Your task to perform on an android device: Open CNN.com Image 0: 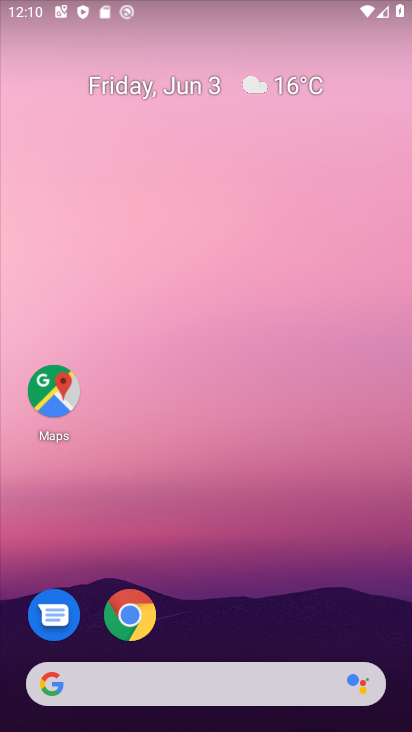
Step 0: drag from (191, 627) to (198, 253)
Your task to perform on an android device: Open CNN.com Image 1: 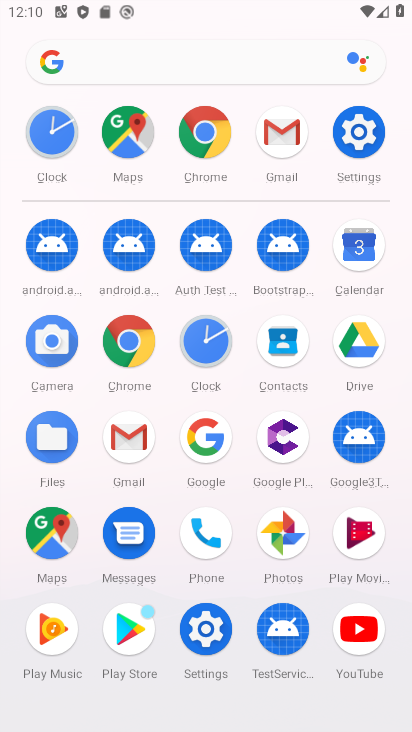
Step 1: click (127, 345)
Your task to perform on an android device: Open CNN.com Image 2: 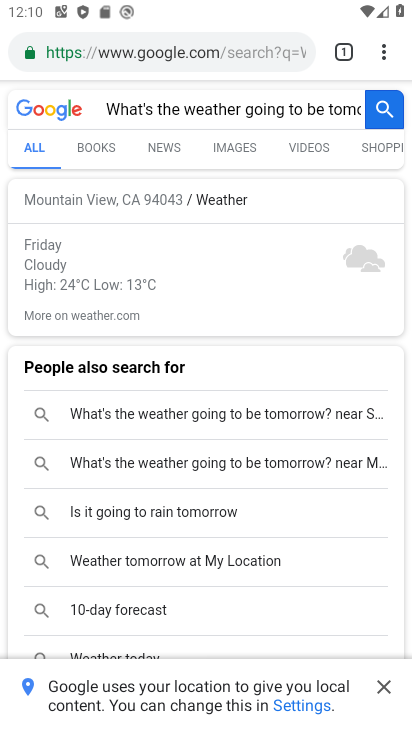
Step 2: click (370, 47)
Your task to perform on an android device: Open CNN.com Image 3: 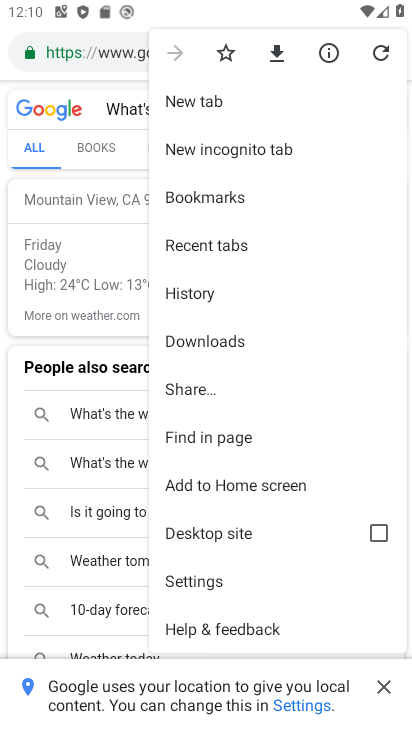
Step 3: click (243, 103)
Your task to perform on an android device: Open CNN.com Image 4: 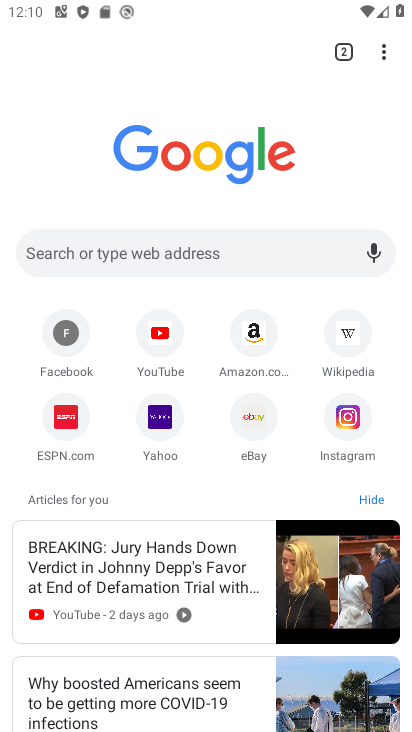
Step 4: click (133, 248)
Your task to perform on an android device: Open CNN.com Image 5: 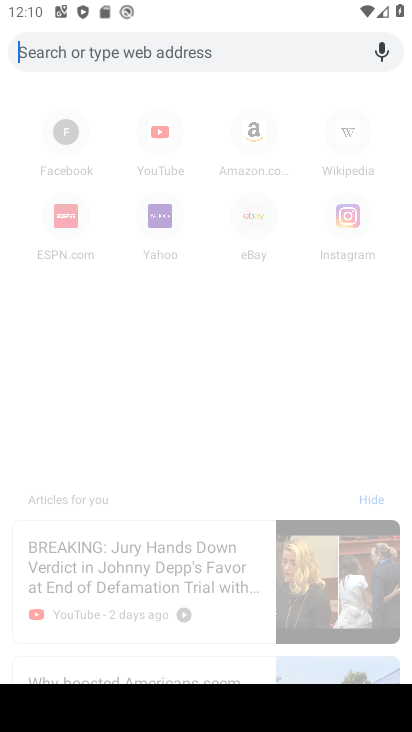
Step 5: type "CNN.com"
Your task to perform on an android device: Open CNN.com Image 6: 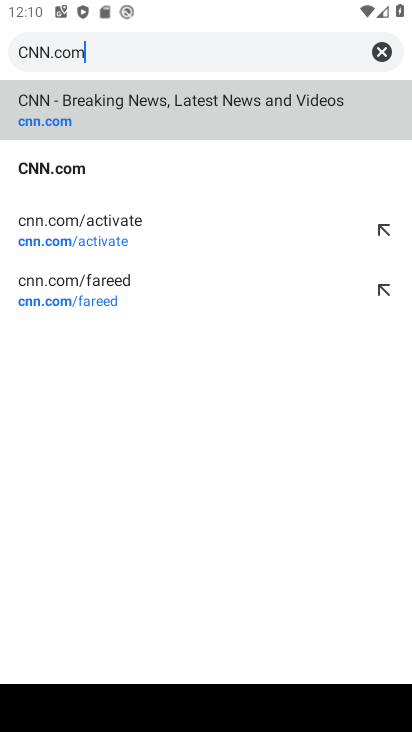
Step 6: click (109, 171)
Your task to perform on an android device: Open CNN.com Image 7: 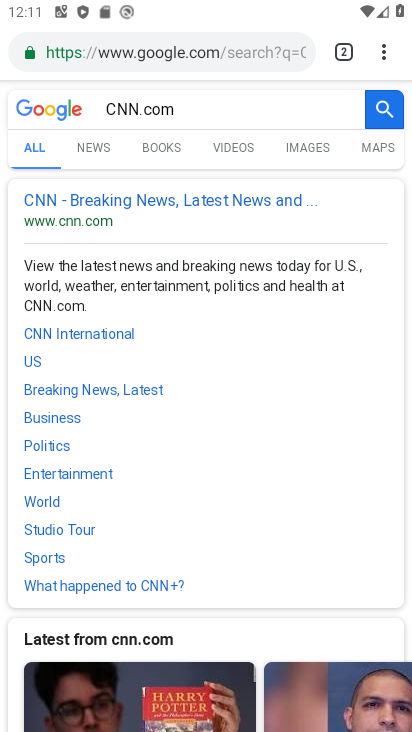
Step 7: task complete